Your task to perform on an android device: What's the speed of light? Image 0: 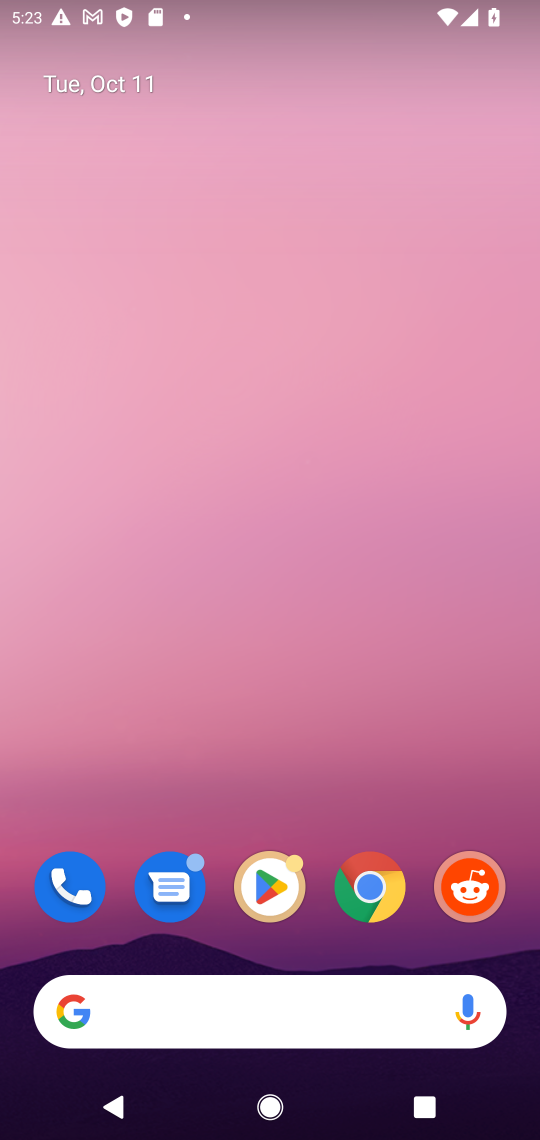
Step 0: click (269, 1015)
Your task to perform on an android device: What's the speed of light? Image 1: 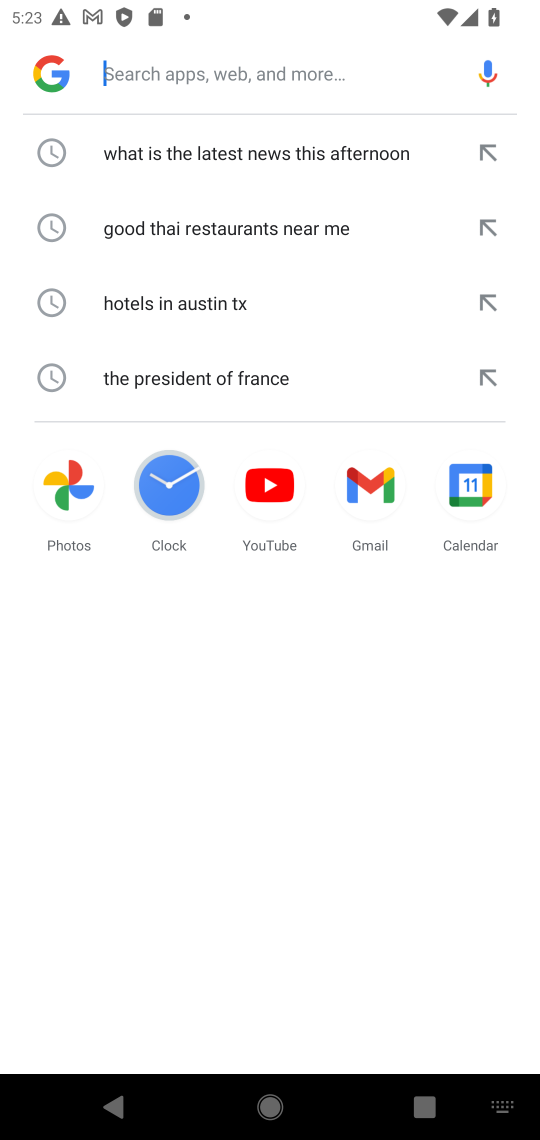
Step 1: type "What's the speed of light?"
Your task to perform on an android device: What's the speed of light? Image 2: 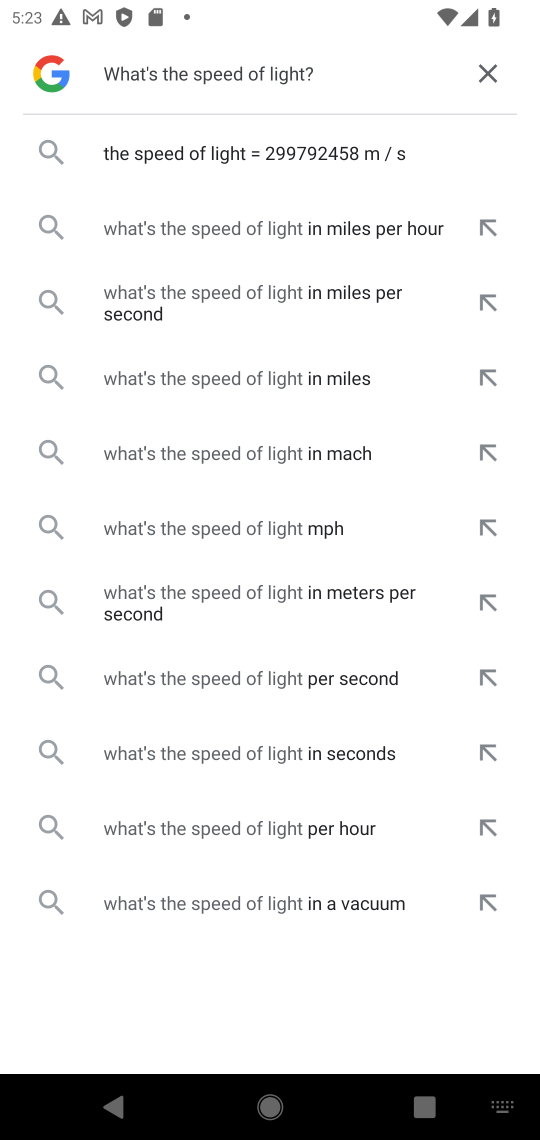
Step 2: click (278, 543)
Your task to perform on an android device: What's the speed of light? Image 3: 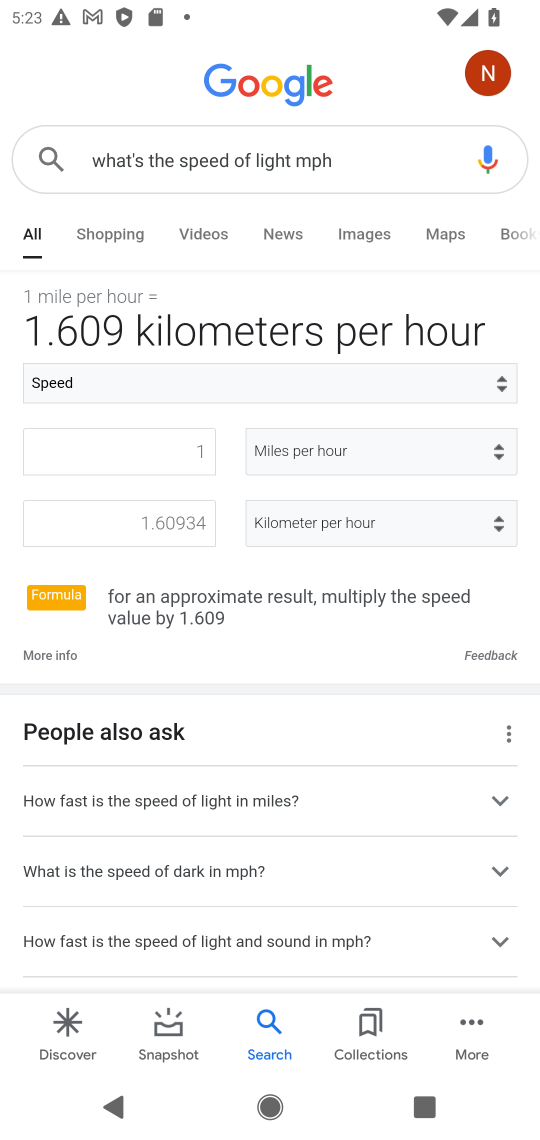
Step 3: task complete